Your task to perform on an android device: Open Google Chrome Image 0: 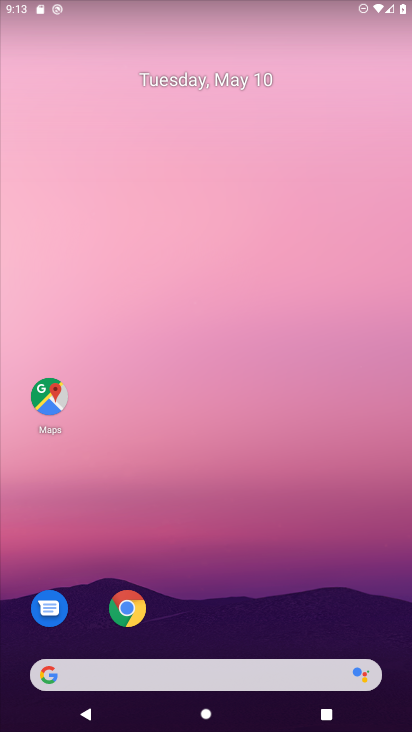
Step 0: drag from (360, 593) to (275, 67)
Your task to perform on an android device: Open Google Chrome Image 1: 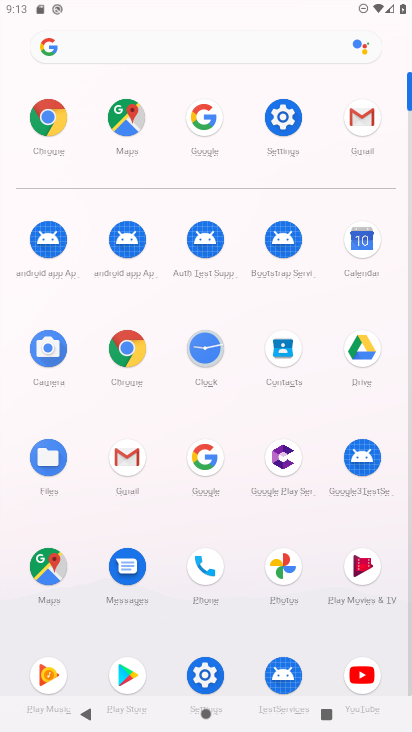
Step 1: click (139, 351)
Your task to perform on an android device: Open Google Chrome Image 2: 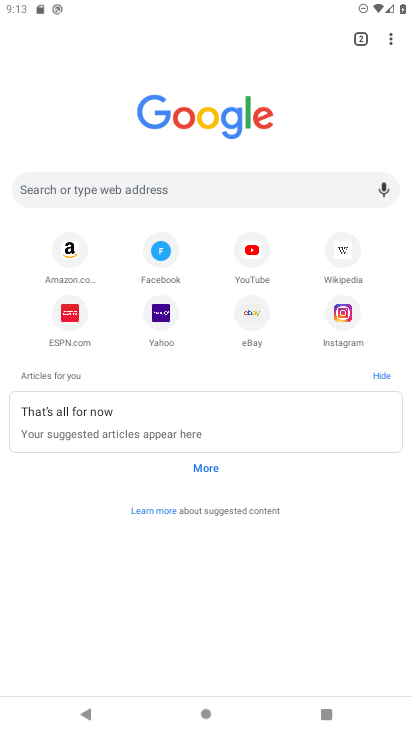
Step 2: task complete